Your task to perform on an android device: toggle show notifications on the lock screen Image 0: 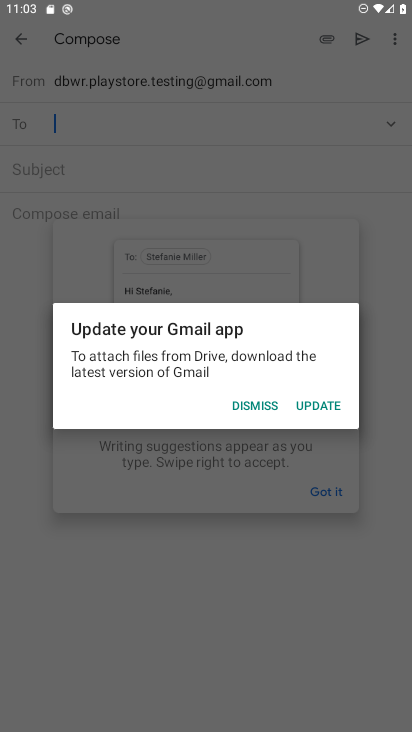
Step 0: press home button
Your task to perform on an android device: toggle show notifications on the lock screen Image 1: 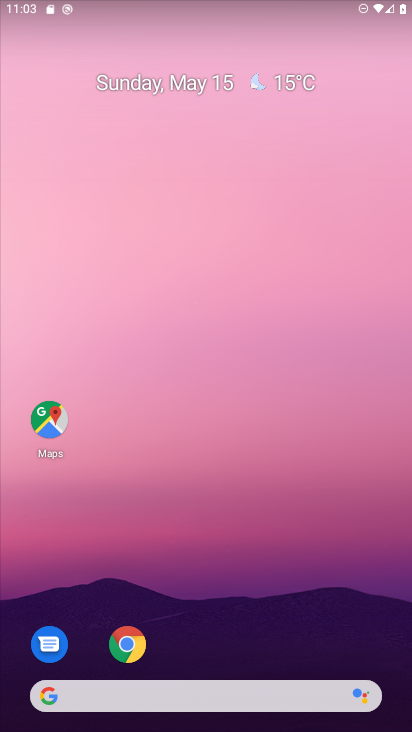
Step 1: drag from (198, 691) to (214, 194)
Your task to perform on an android device: toggle show notifications on the lock screen Image 2: 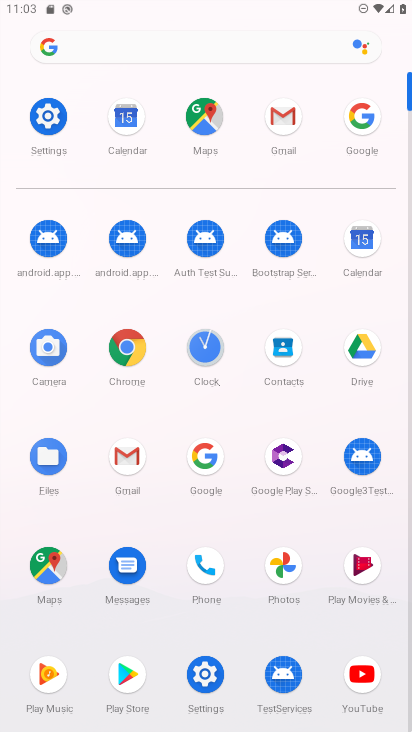
Step 2: click (47, 122)
Your task to perform on an android device: toggle show notifications on the lock screen Image 3: 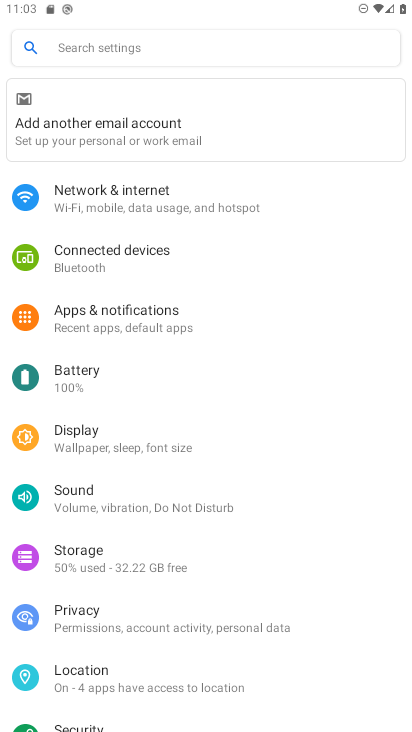
Step 3: click (103, 627)
Your task to perform on an android device: toggle show notifications on the lock screen Image 4: 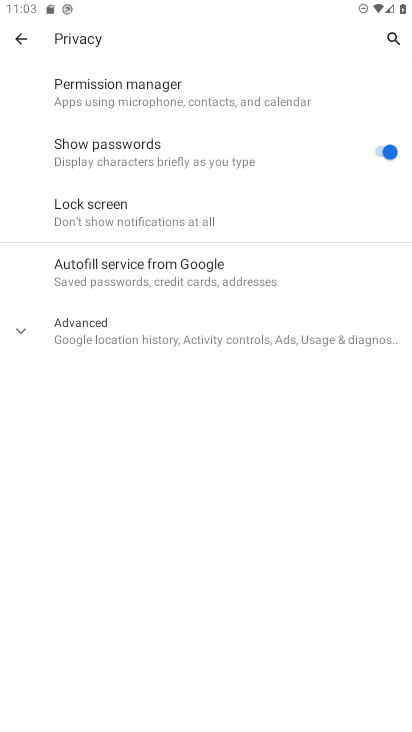
Step 4: click (120, 208)
Your task to perform on an android device: toggle show notifications on the lock screen Image 5: 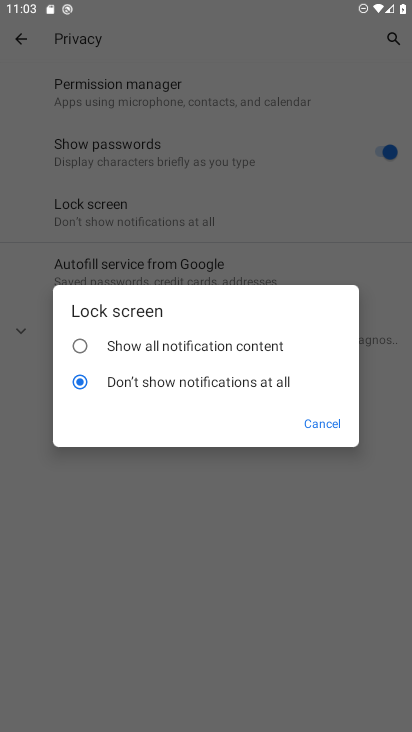
Step 5: click (79, 348)
Your task to perform on an android device: toggle show notifications on the lock screen Image 6: 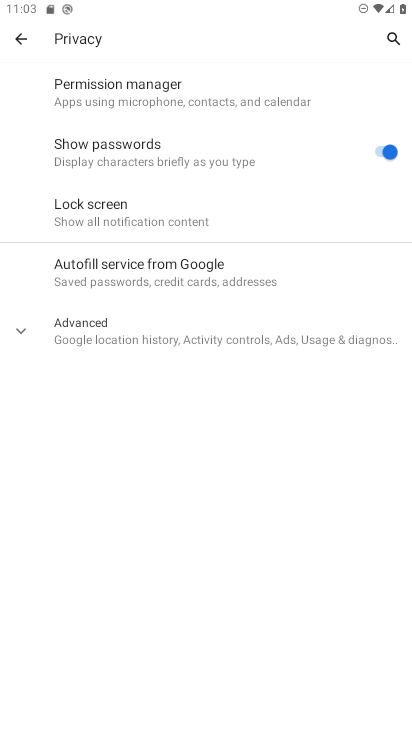
Step 6: task complete